Your task to perform on an android device: Open Google Maps and go to "Timeline" Image 0: 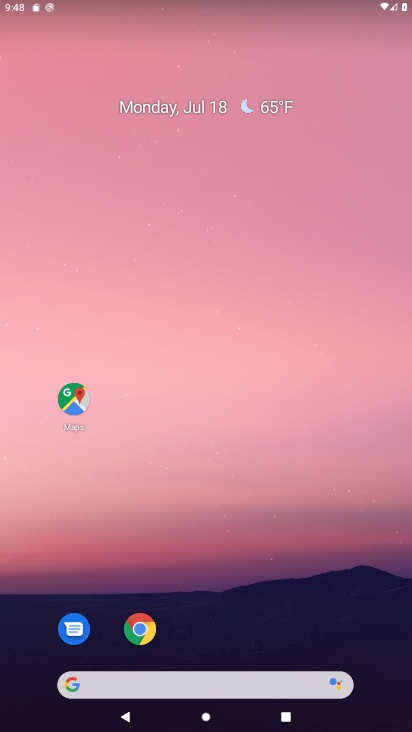
Step 0: click (66, 400)
Your task to perform on an android device: Open Google Maps and go to "Timeline" Image 1: 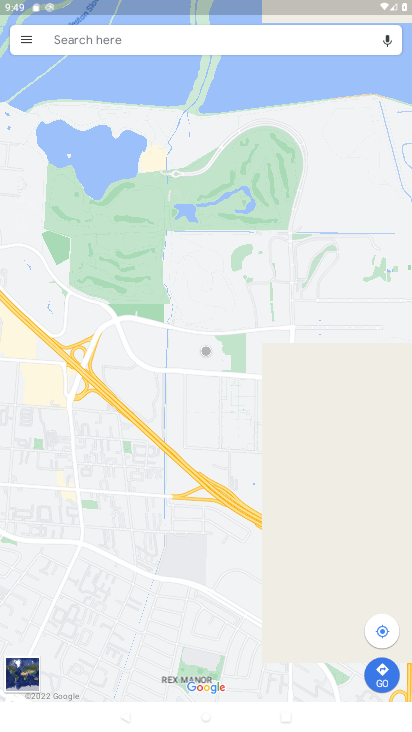
Step 1: click (16, 38)
Your task to perform on an android device: Open Google Maps and go to "Timeline" Image 2: 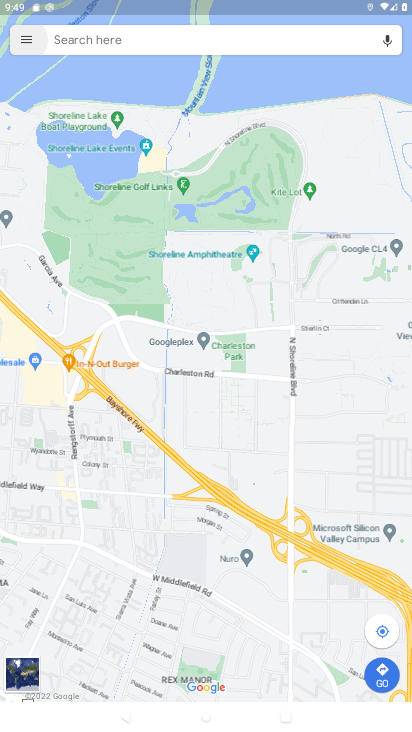
Step 2: click (21, 34)
Your task to perform on an android device: Open Google Maps and go to "Timeline" Image 3: 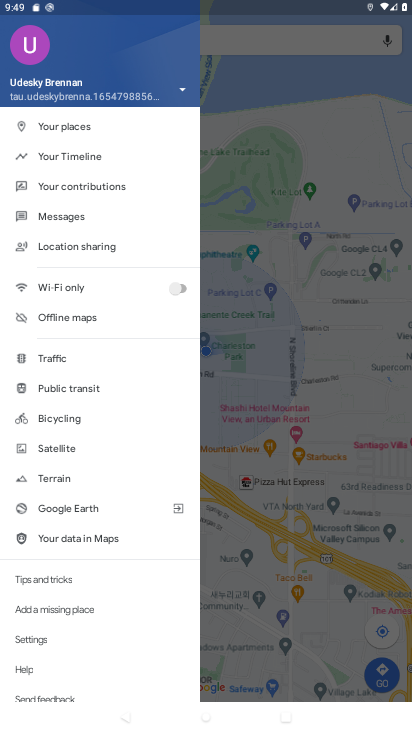
Step 3: click (56, 154)
Your task to perform on an android device: Open Google Maps and go to "Timeline" Image 4: 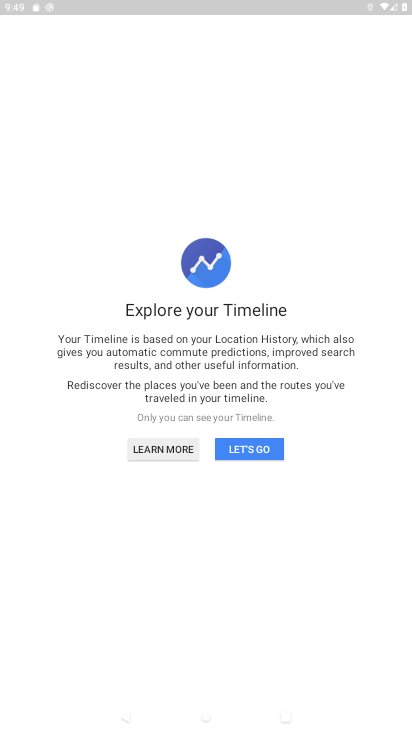
Step 4: click (249, 448)
Your task to perform on an android device: Open Google Maps and go to "Timeline" Image 5: 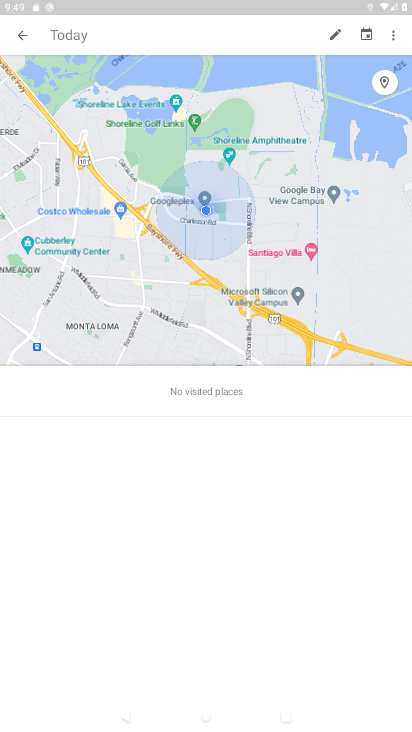
Step 5: task complete